Your task to perform on an android device: read, delete, or share a saved page in the chrome app Image 0: 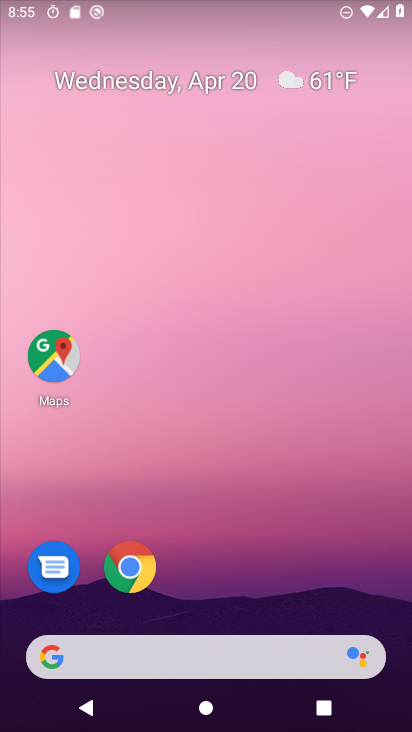
Step 0: click (134, 566)
Your task to perform on an android device: read, delete, or share a saved page in the chrome app Image 1: 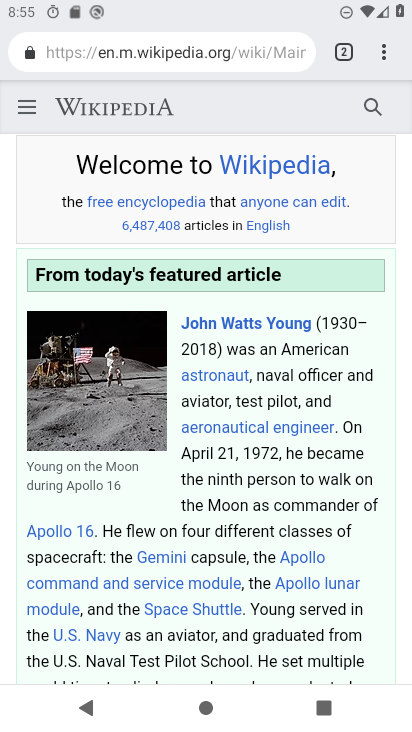
Step 1: click (384, 53)
Your task to perform on an android device: read, delete, or share a saved page in the chrome app Image 2: 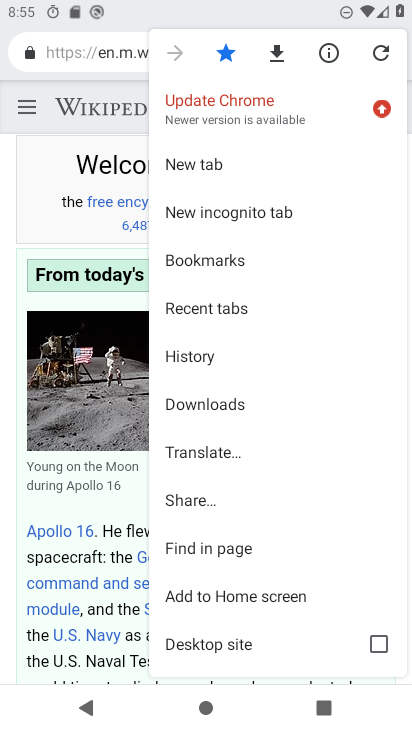
Step 2: click (195, 407)
Your task to perform on an android device: read, delete, or share a saved page in the chrome app Image 3: 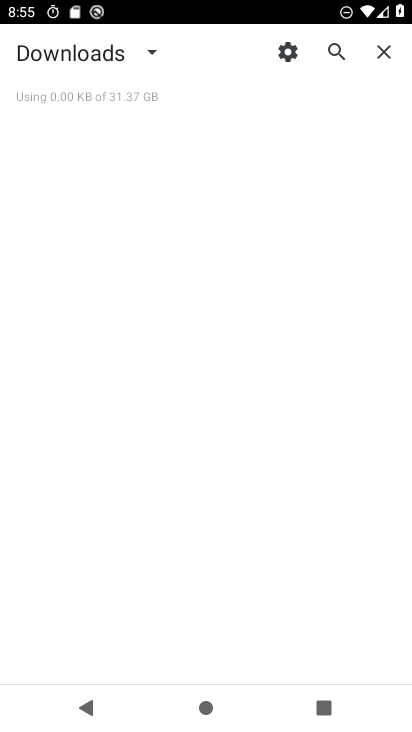
Step 3: click (148, 60)
Your task to perform on an android device: read, delete, or share a saved page in the chrome app Image 4: 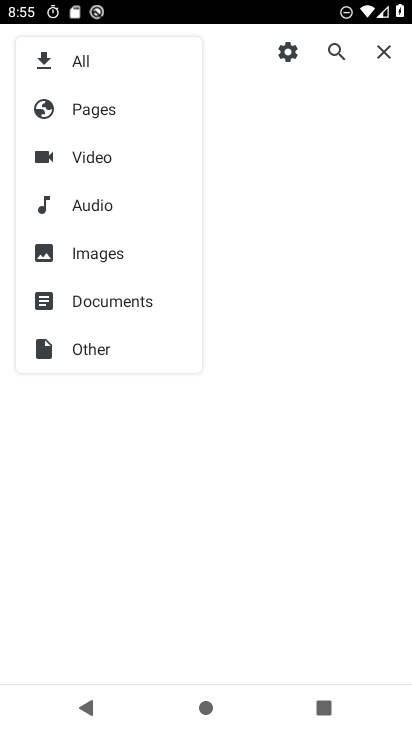
Step 4: click (99, 120)
Your task to perform on an android device: read, delete, or share a saved page in the chrome app Image 5: 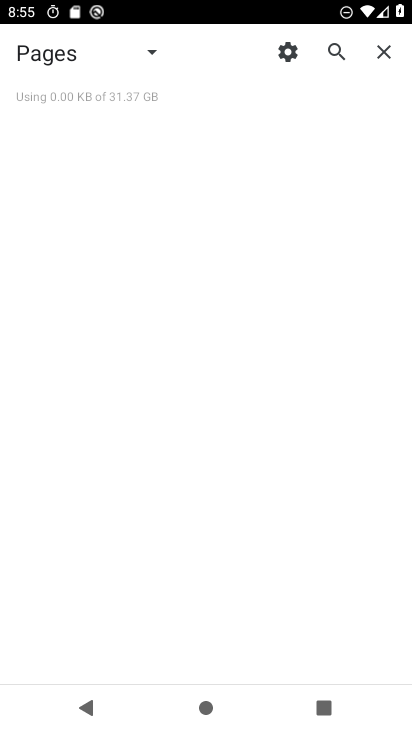
Step 5: task complete